Your task to perform on an android device: allow notifications from all sites in the chrome app Image 0: 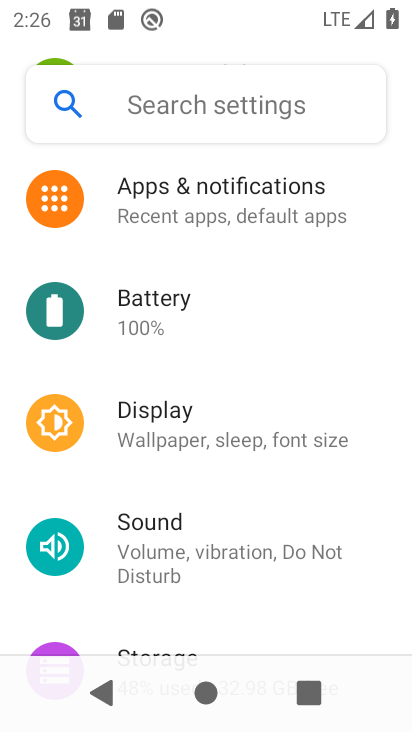
Step 0: press back button
Your task to perform on an android device: allow notifications from all sites in the chrome app Image 1: 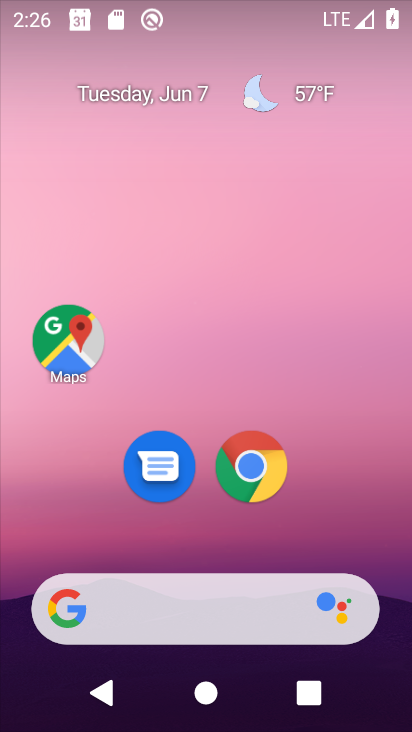
Step 1: click (246, 457)
Your task to perform on an android device: allow notifications from all sites in the chrome app Image 2: 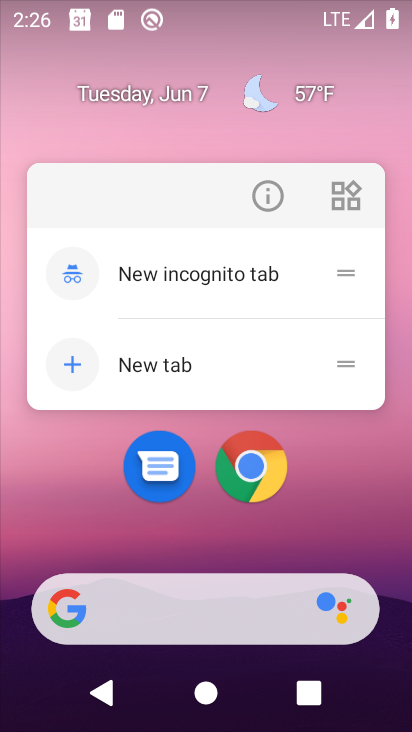
Step 2: click (247, 458)
Your task to perform on an android device: allow notifications from all sites in the chrome app Image 3: 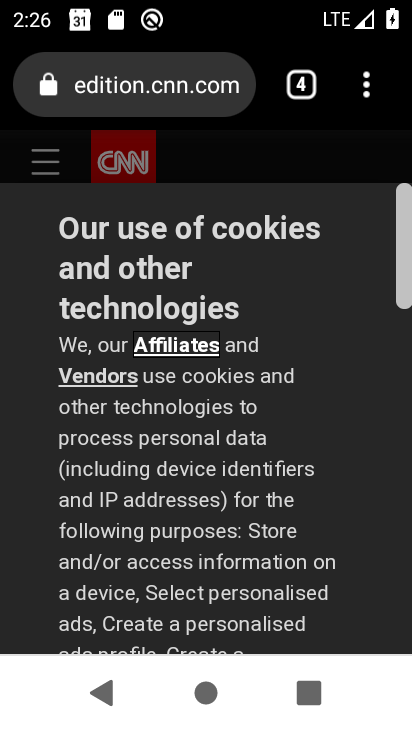
Step 3: drag from (375, 81) to (100, 509)
Your task to perform on an android device: allow notifications from all sites in the chrome app Image 4: 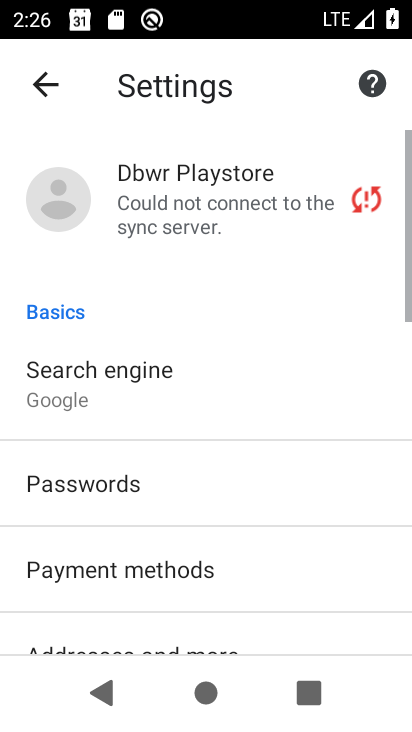
Step 4: drag from (153, 566) to (282, 85)
Your task to perform on an android device: allow notifications from all sites in the chrome app Image 5: 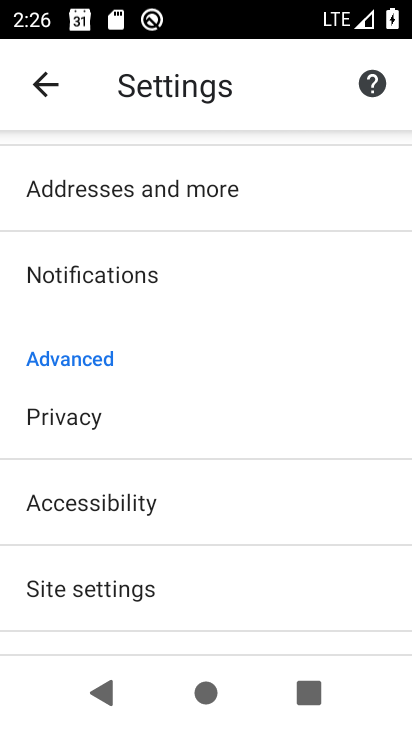
Step 5: click (77, 290)
Your task to perform on an android device: allow notifications from all sites in the chrome app Image 6: 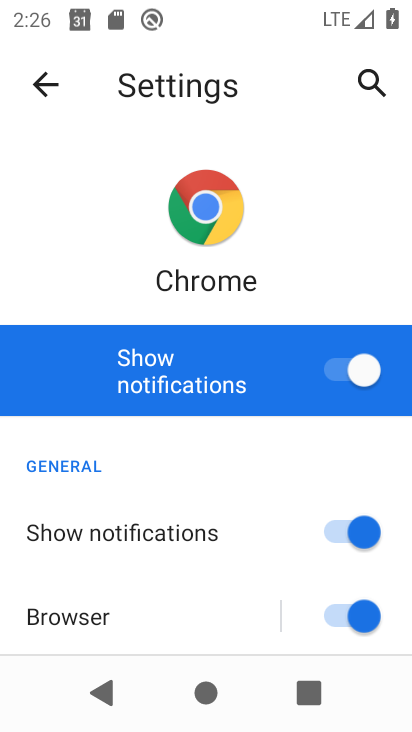
Step 6: task complete